Your task to perform on an android device: Search for sushi restaurants on Maps Image 0: 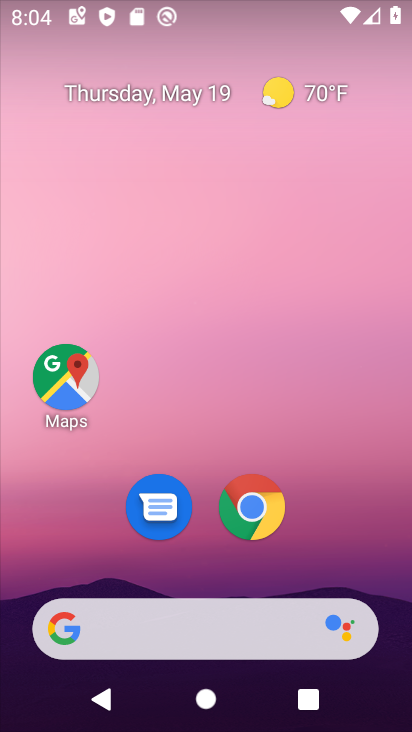
Step 0: click (49, 396)
Your task to perform on an android device: Search for sushi restaurants on Maps Image 1: 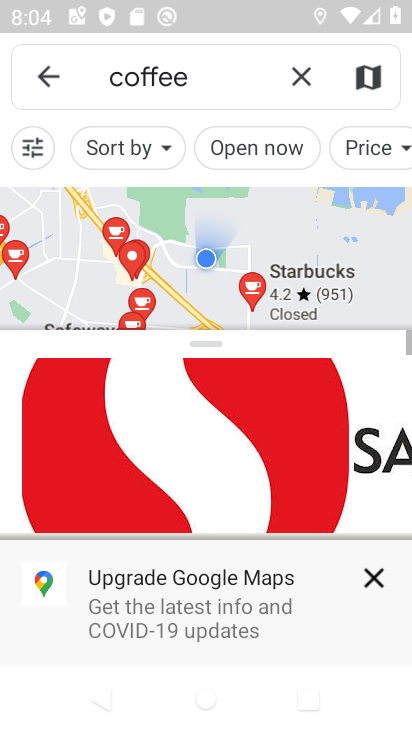
Step 1: click (296, 90)
Your task to perform on an android device: Search for sushi restaurants on Maps Image 2: 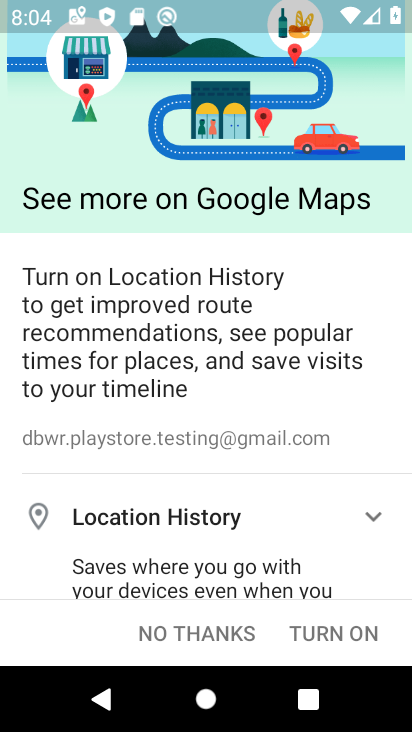
Step 2: click (329, 639)
Your task to perform on an android device: Search for sushi restaurants on Maps Image 3: 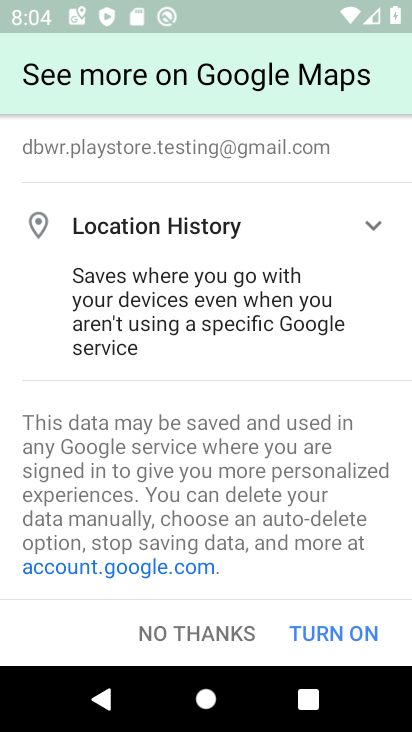
Step 3: click (335, 639)
Your task to perform on an android device: Search for sushi restaurants on Maps Image 4: 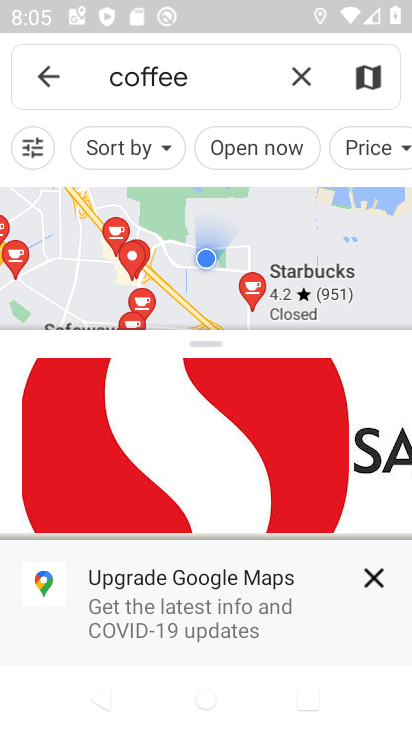
Step 4: click (297, 82)
Your task to perform on an android device: Search for sushi restaurants on Maps Image 5: 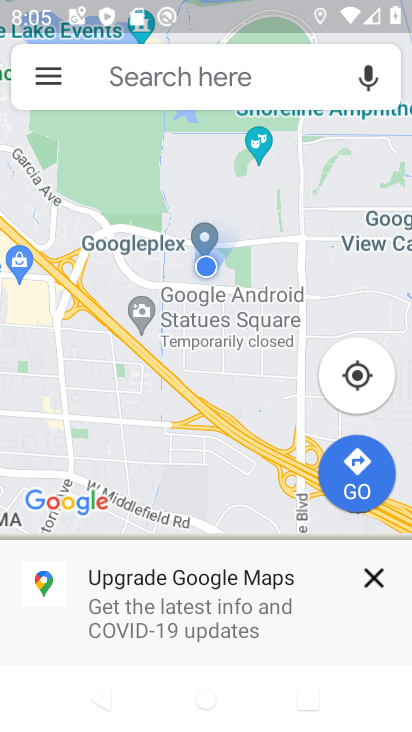
Step 5: click (190, 84)
Your task to perform on an android device: Search for sushi restaurants on Maps Image 6: 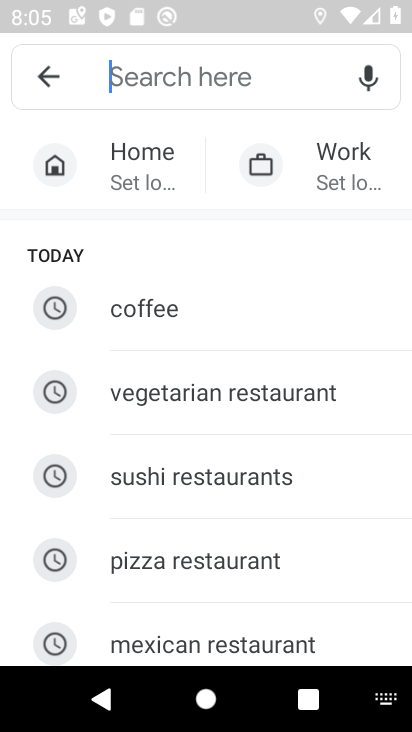
Step 6: click (176, 488)
Your task to perform on an android device: Search for sushi restaurants on Maps Image 7: 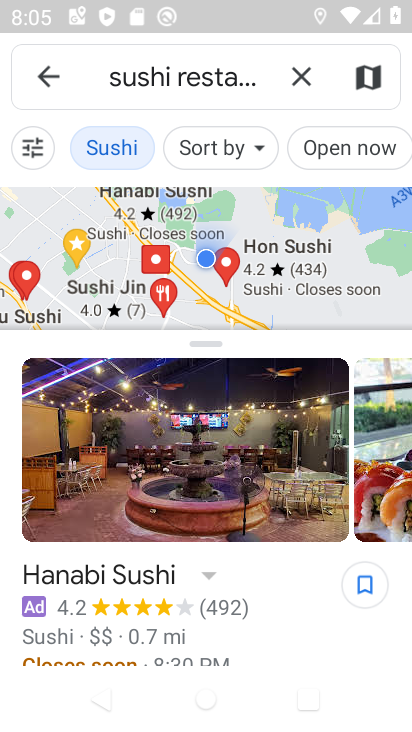
Step 7: task complete